Your task to perform on an android device: toggle improve location accuracy Image 0: 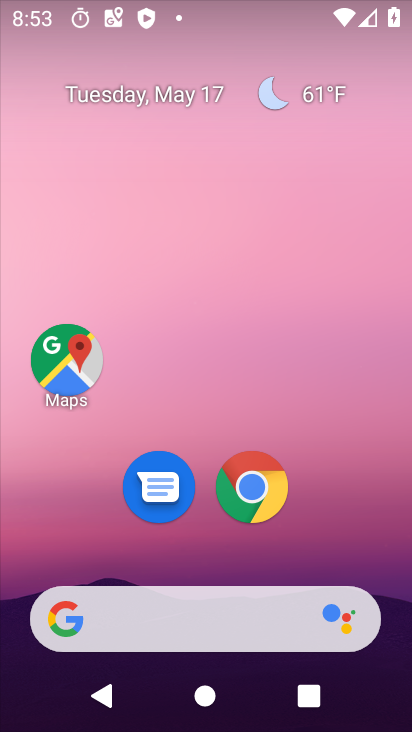
Step 0: press home button
Your task to perform on an android device: toggle improve location accuracy Image 1: 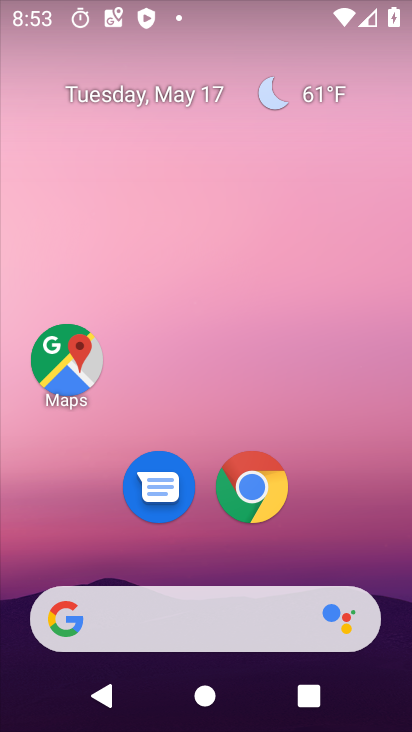
Step 1: drag from (175, 624) to (278, 198)
Your task to perform on an android device: toggle improve location accuracy Image 2: 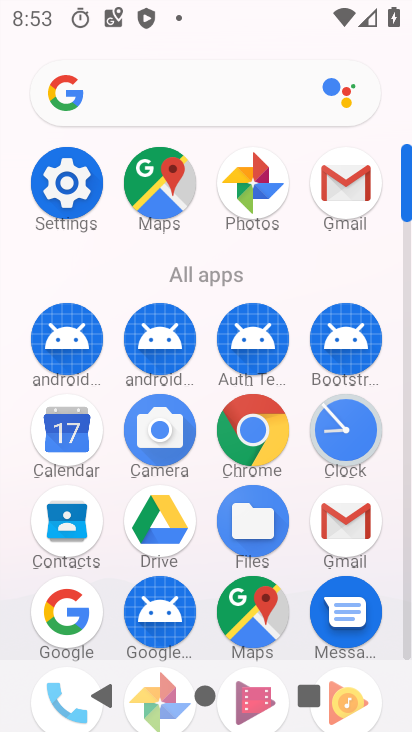
Step 2: click (70, 195)
Your task to perform on an android device: toggle improve location accuracy Image 3: 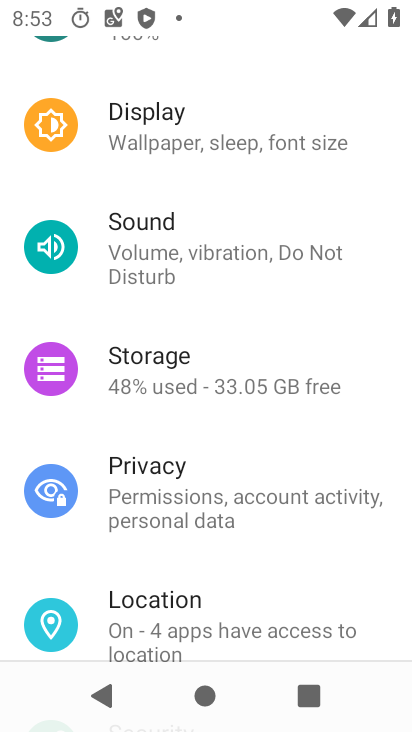
Step 3: click (209, 623)
Your task to perform on an android device: toggle improve location accuracy Image 4: 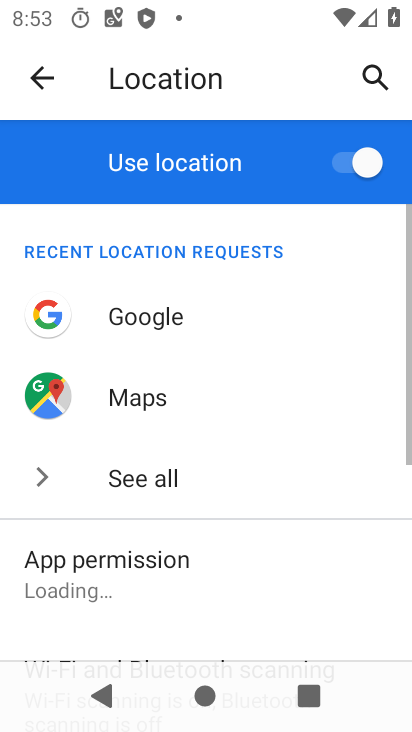
Step 4: drag from (237, 594) to (331, 172)
Your task to perform on an android device: toggle improve location accuracy Image 5: 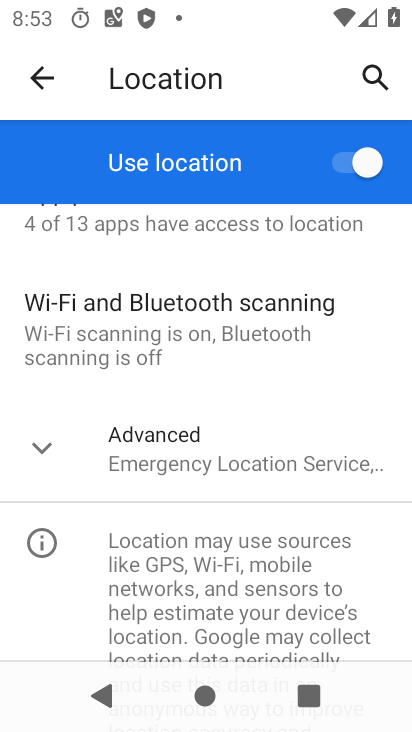
Step 5: click (202, 461)
Your task to perform on an android device: toggle improve location accuracy Image 6: 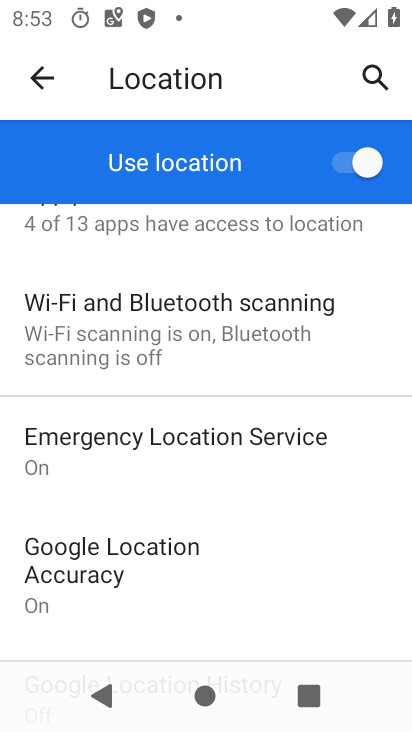
Step 6: click (111, 584)
Your task to perform on an android device: toggle improve location accuracy Image 7: 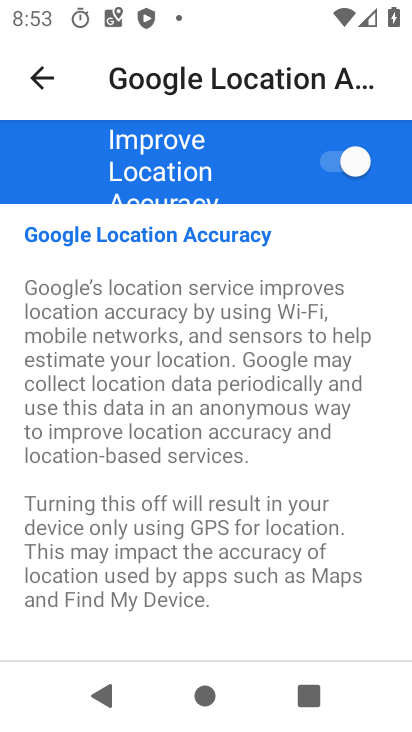
Step 7: click (335, 161)
Your task to perform on an android device: toggle improve location accuracy Image 8: 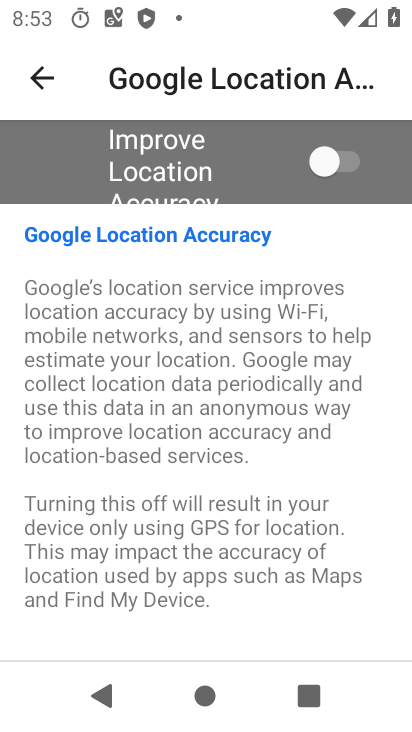
Step 8: task complete